Your task to perform on an android device: turn on javascript in the chrome app Image 0: 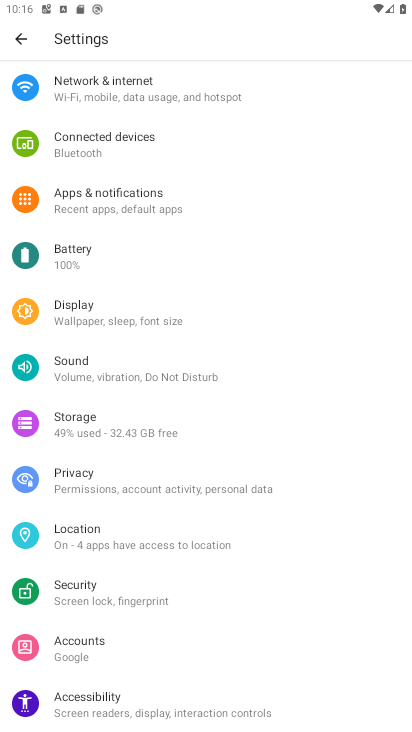
Step 0: press home button
Your task to perform on an android device: turn on javascript in the chrome app Image 1: 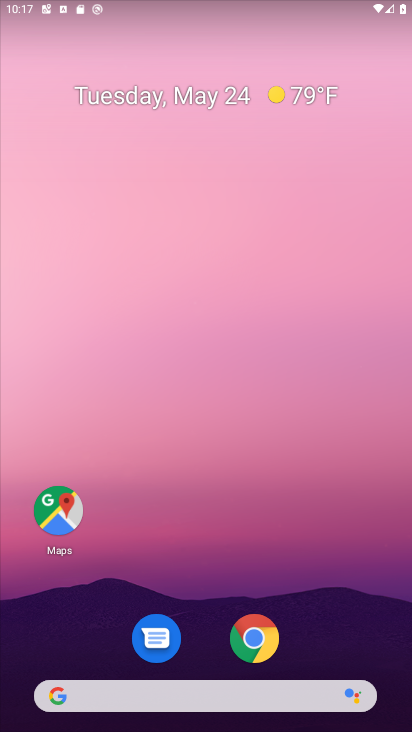
Step 1: click (255, 643)
Your task to perform on an android device: turn on javascript in the chrome app Image 2: 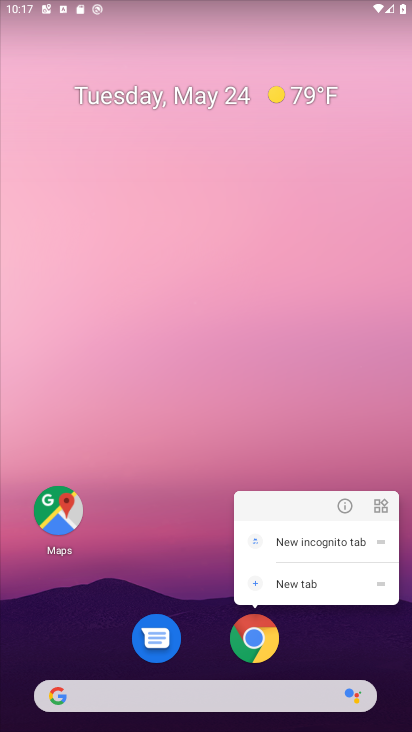
Step 2: click (257, 648)
Your task to perform on an android device: turn on javascript in the chrome app Image 3: 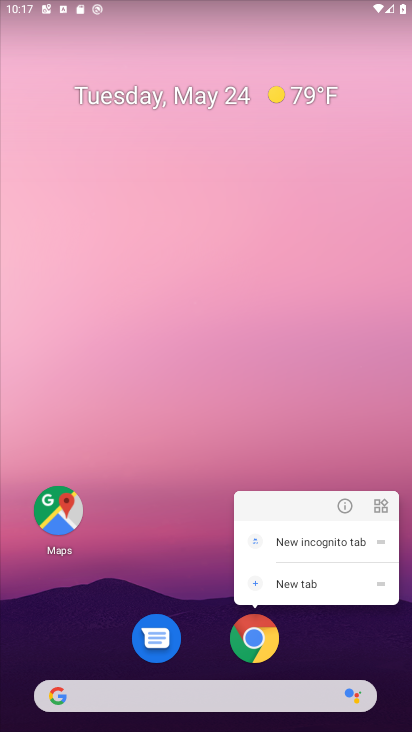
Step 3: click (257, 648)
Your task to perform on an android device: turn on javascript in the chrome app Image 4: 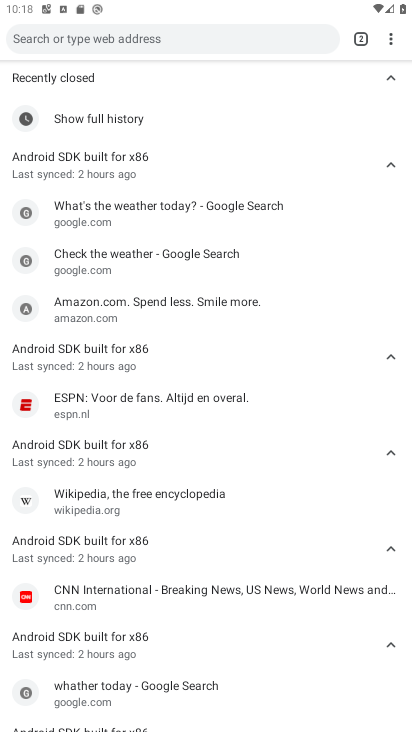
Step 4: click (390, 36)
Your task to perform on an android device: turn on javascript in the chrome app Image 5: 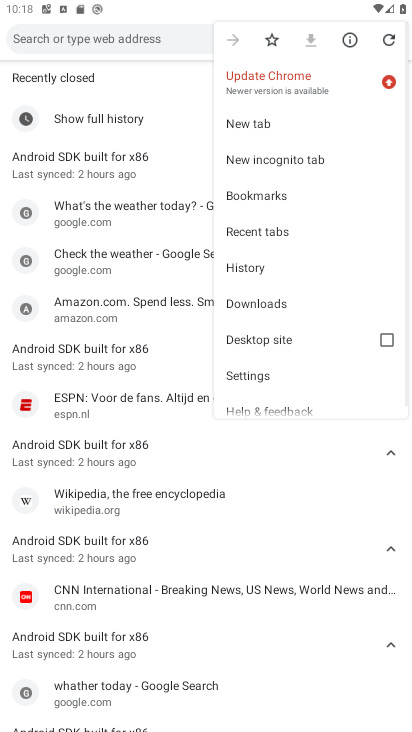
Step 5: click (248, 373)
Your task to perform on an android device: turn on javascript in the chrome app Image 6: 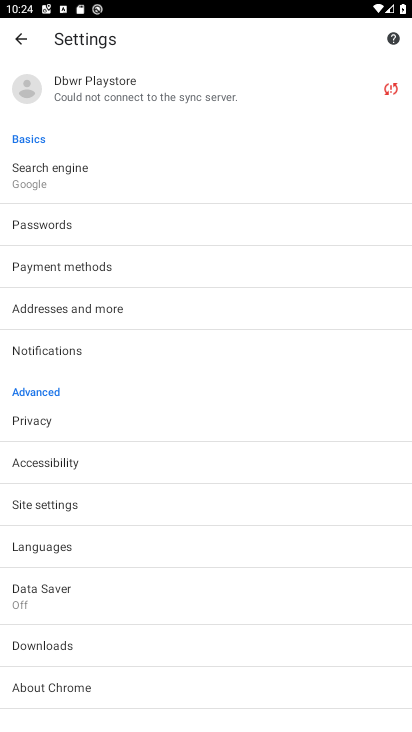
Step 6: click (51, 506)
Your task to perform on an android device: turn on javascript in the chrome app Image 7: 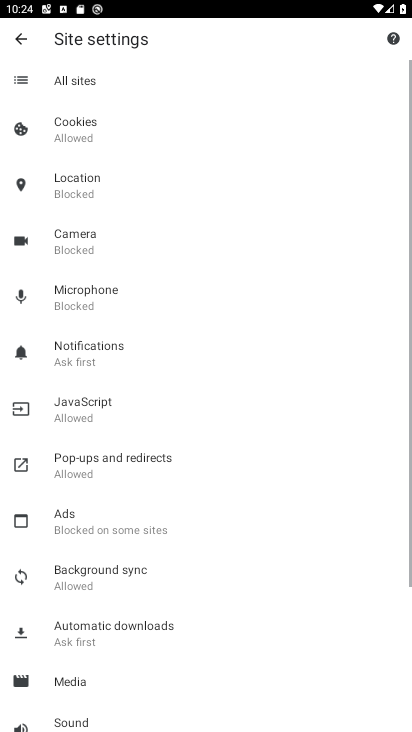
Step 7: click (86, 405)
Your task to perform on an android device: turn on javascript in the chrome app Image 8: 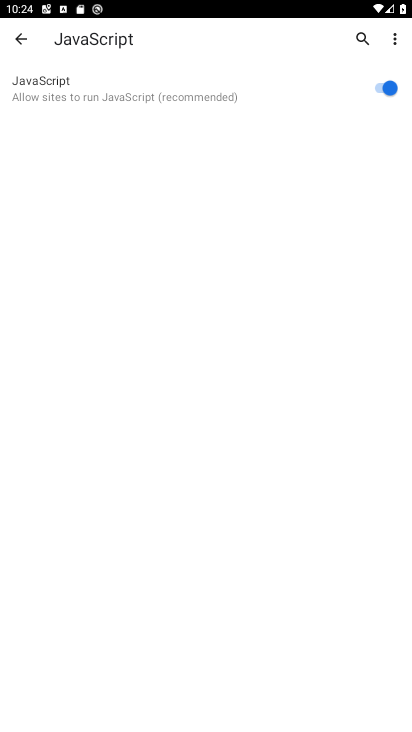
Step 8: task complete